Your task to perform on an android device: turn pop-ups off in chrome Image 0: 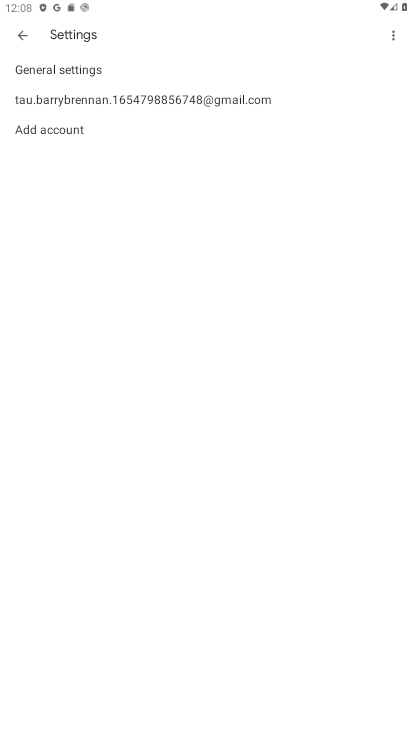
Step 0: press home button
Your task to perform on an android device: turn pop-ups off in chrome Image 1: 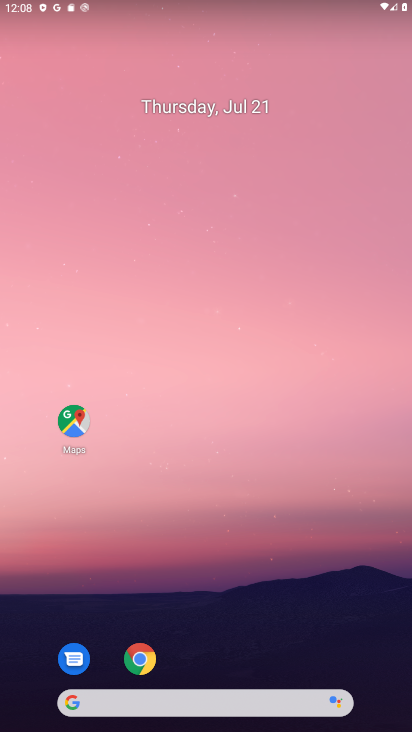
Step 1: drag from (384, 651) to (332, 318)
Your task to perform on an android device: turn pop-ups off in chrome Image 2: 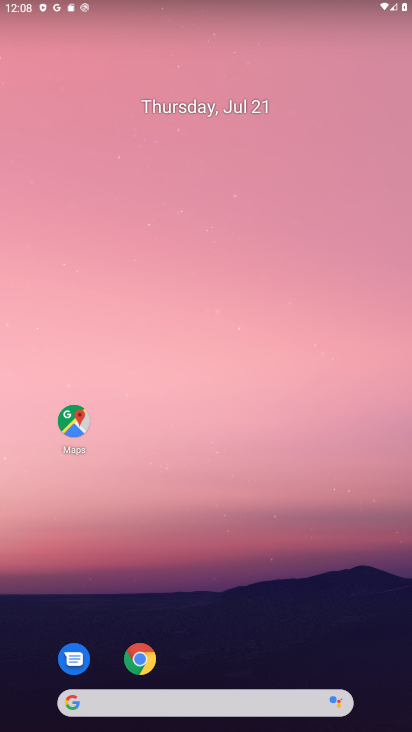
Step 2: drag from (380, 671) to (342, 276)
Your task to perform on an android device: turn pop-ups off in chrome Image 3: 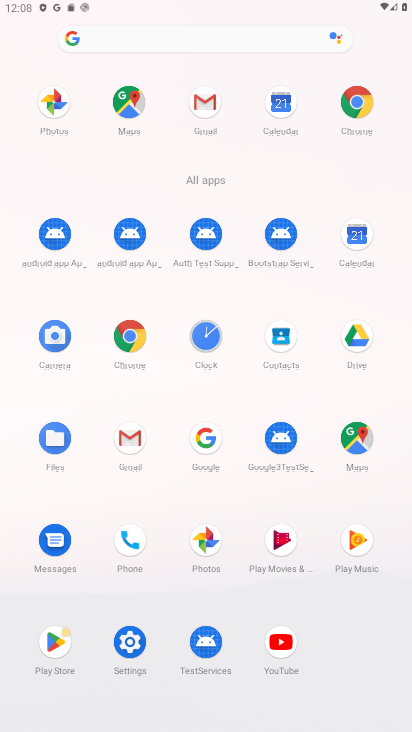
Step 3: click (362, 110)
Your task to perform on an android device: turn pop-ups off in chrome Image 4: 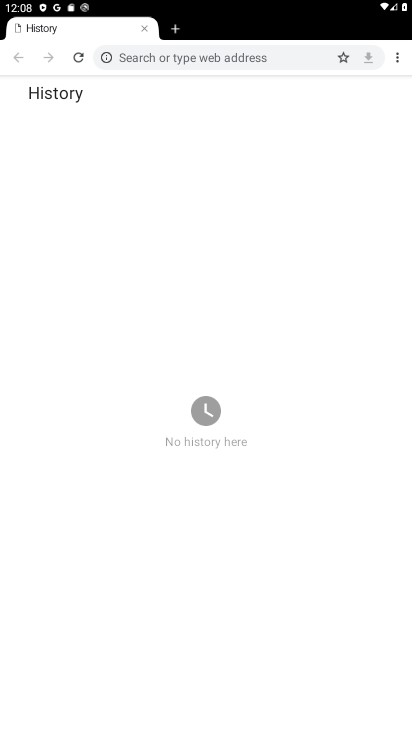
Step 4: click (392, 62)
Your task to perform on an android device: turn pop-ups off in chrome Image 5: 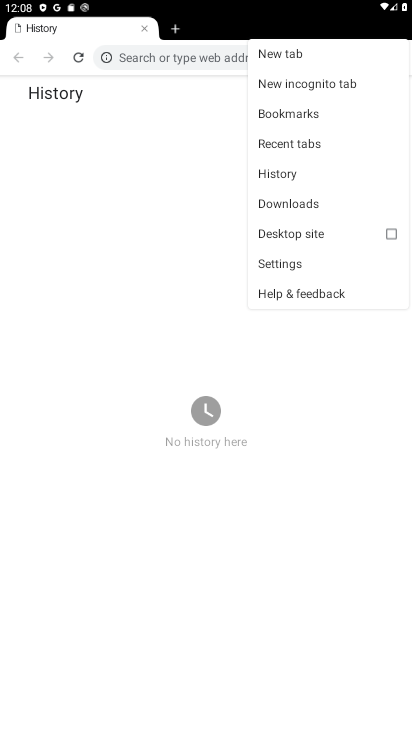
Step 5: click (334, 265)
Your task to perform on an android device: turn pop-ups off in chrome Image 6: 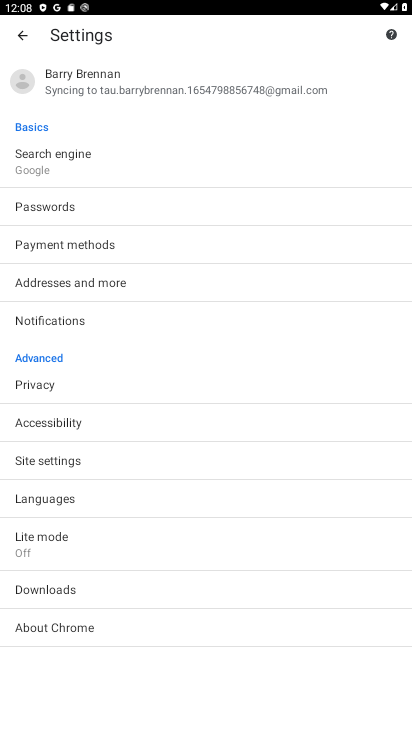
Step 6: click (134, 450)
Your task to perform on an android device: turn pop-ups off in chrome Image 7: 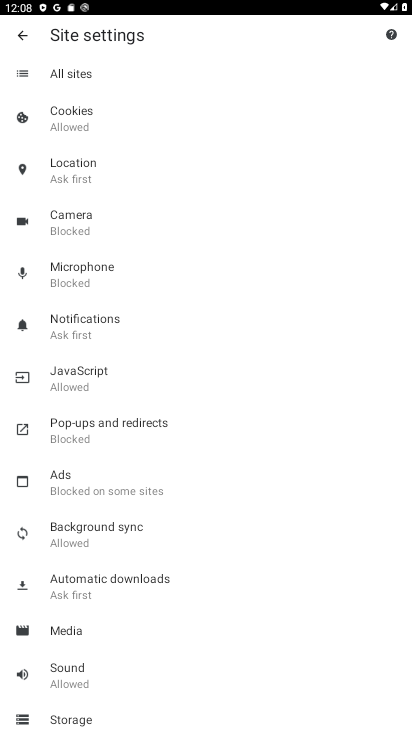
Step 7: click (136, 431)
Your task to perform on an android device: turn pop-ups off in chrome Image 8: 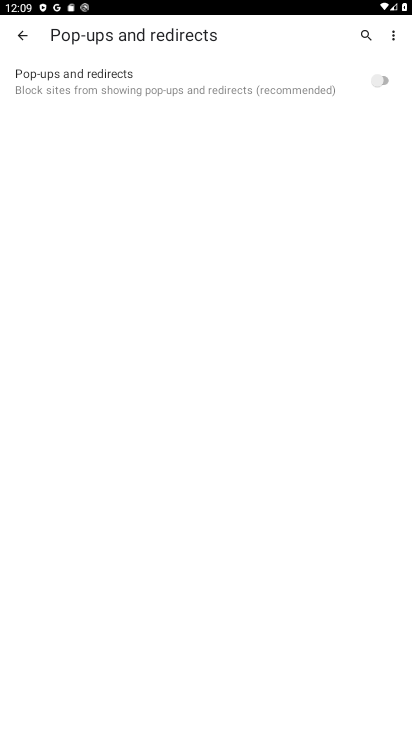
Step 8: task complete